Your task to perform on an android device: Go to notification settings Image 0: 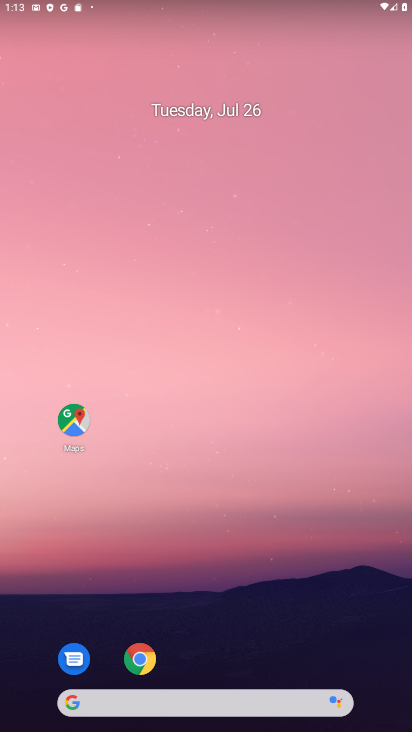
Step 0: drag from (234, 563) to (224, 71)
Your task to perform on an android device: Go to notification settings Image 1: 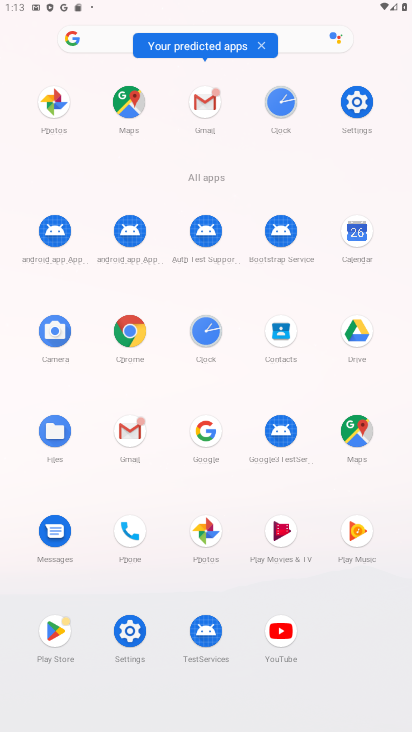
Step 1: click (354, 110)
Your task to perform on an android device: Go to notification settings Image 2: 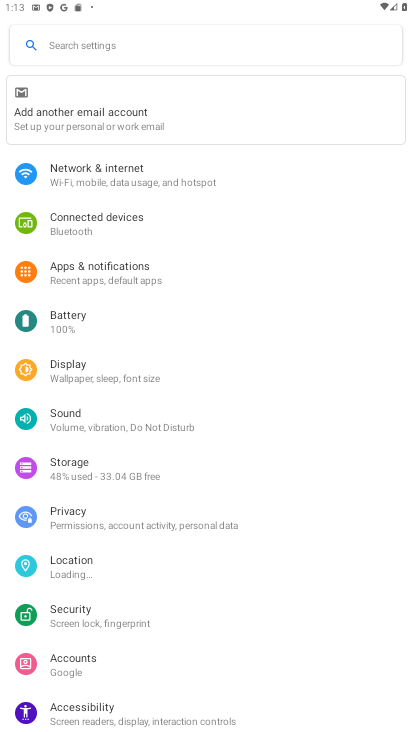
Step 2: click (90, 276)
Your task to perform on an android device: Go to notification settings Image 3: 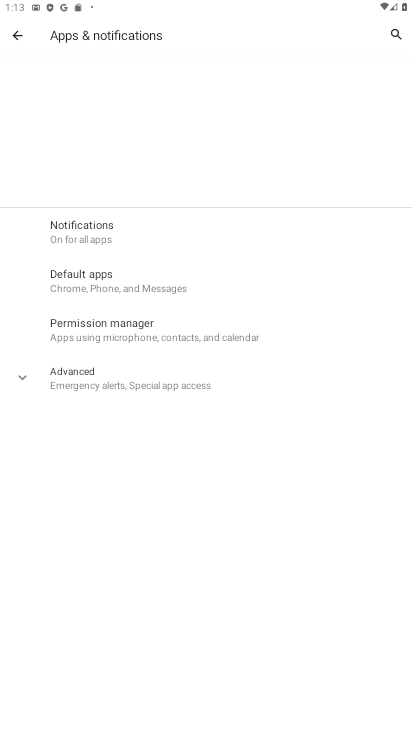
Step 3: click (73, 225)
Your task to perform on an android device: Go to notification settings Image 4: 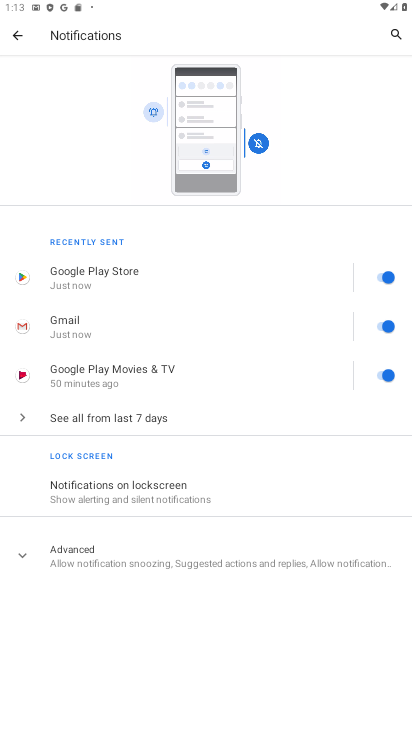
Step 4: task complete